Your task to perform on an android device: open sync settings in chrome Image 0: 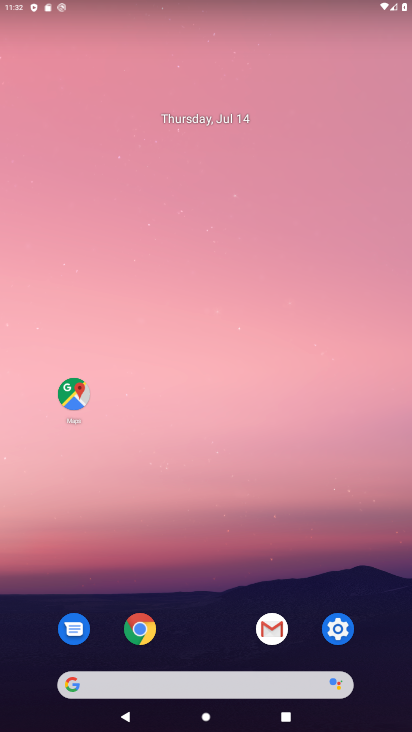
Step 0: press home button
Your task to perform on an android device: open sync settings in chrome Image 1: 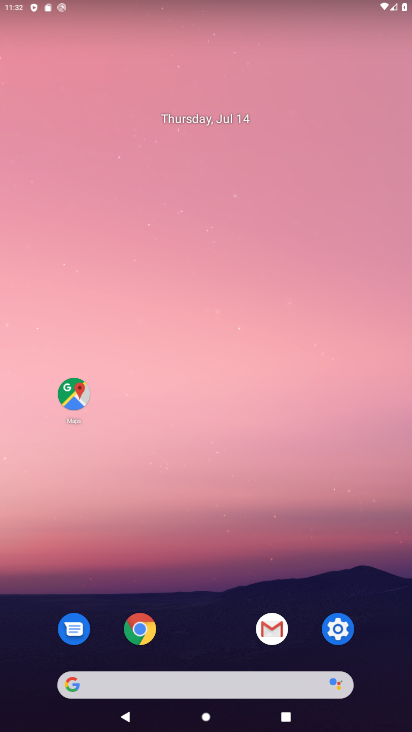
Step 1: click (133, 615)
Your task to perform on an android device: open sync settings in chrome Image 2: 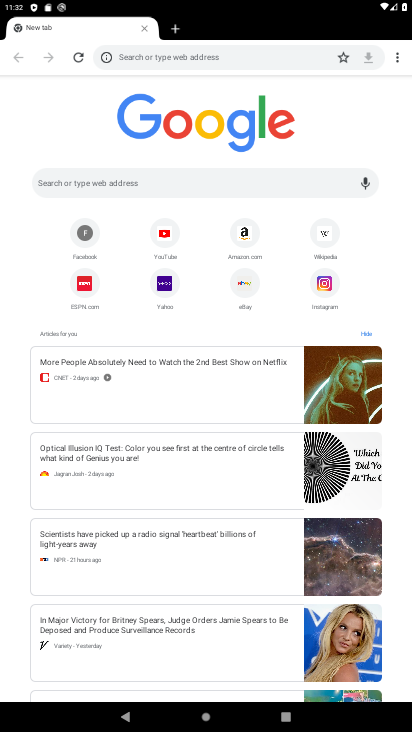
Step 2: click (393, 62)
Your task to perform on an android device: open sync settings in chrome Image 3: 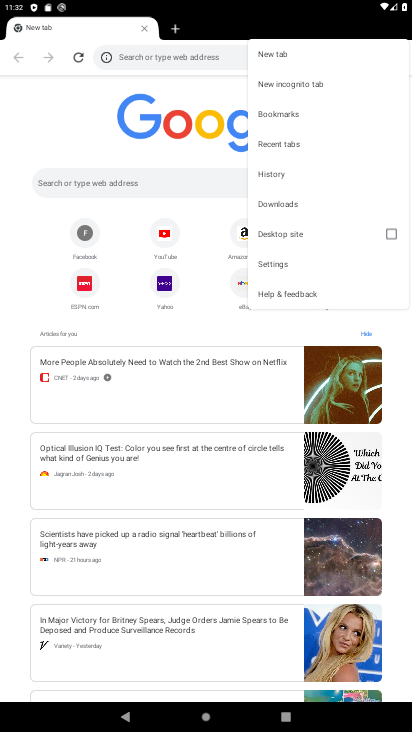
Step 3: click (270, 261)
Your task to perform on an android device: open sync settings in chrome Image 4: 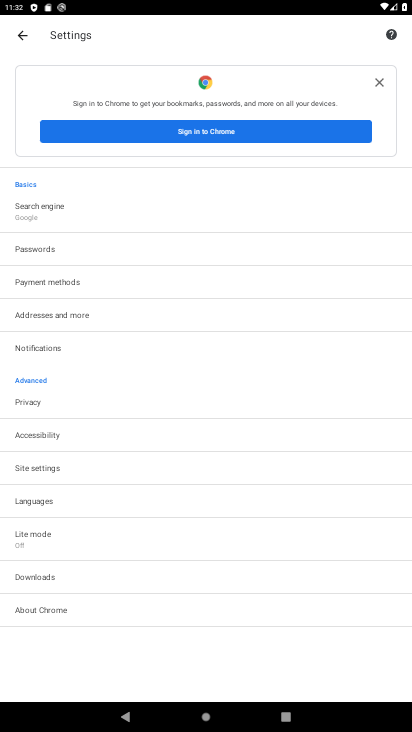
Step 4: click (77, 469)
Your task to perform on an android device: open sync settings in chrome Image 5: 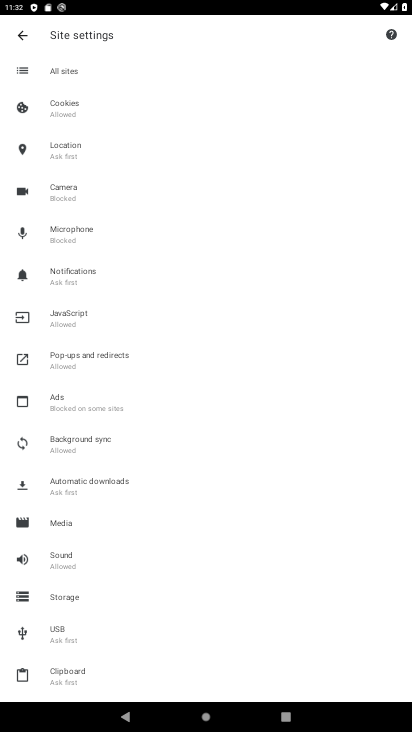
Step 5: click (122, 432)
Your task to perform on an android device: open sync settings in chrome Image 6: 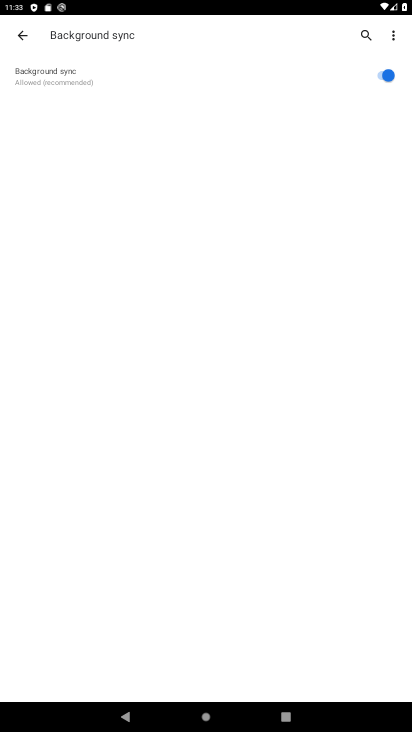
Step 6: task complete